Your task to perform on an android device: Open accessibility settings Image 0: 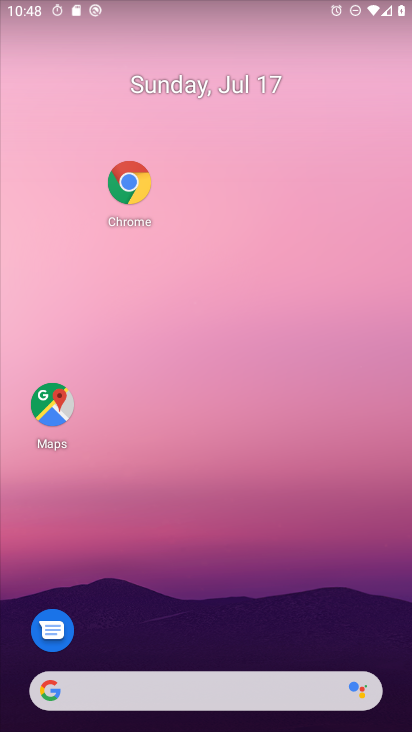
Step 0: drag from (258, 552) to (260, 372)
Your task to perform on an android device: Open accessibility settings Image 1: 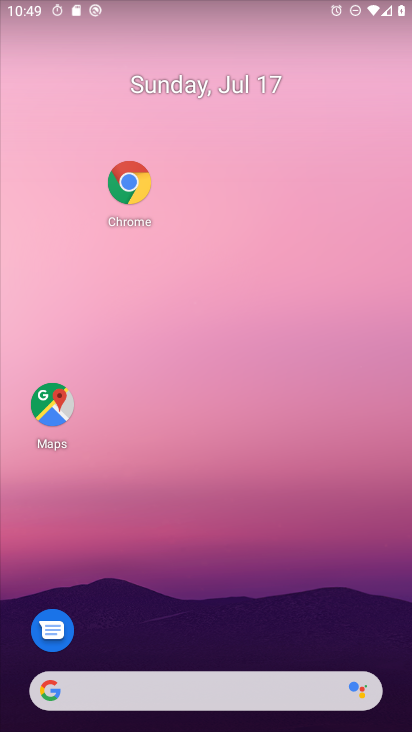
Step 1: drag from (194, 650) to (233, 219)
Your task to perform on an android device: Open accessibility settings Image 2: 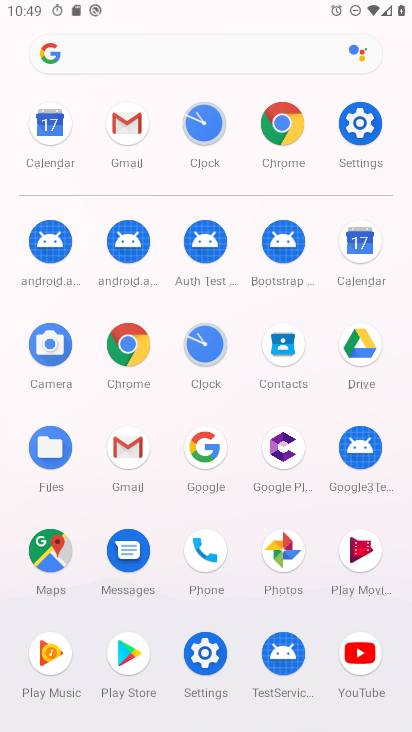
Step 2: click (364, 117)
Your task to perform on an android device: Open accessibility settings Image 3: 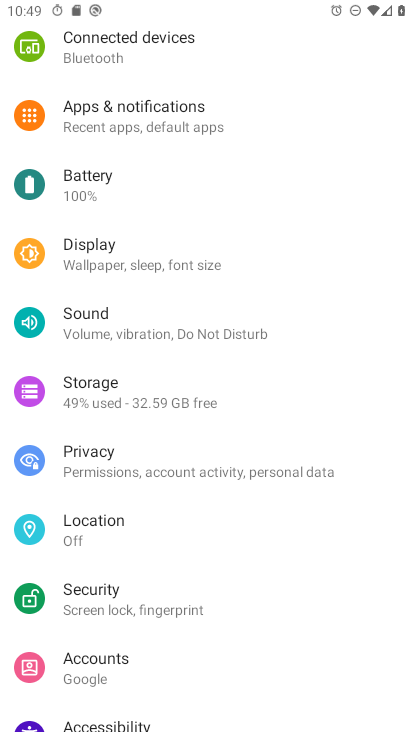
Step 3: drag from (135, 550) to (164, 60)
Your task to perform on an android device: Open accessibility settings Image 4: 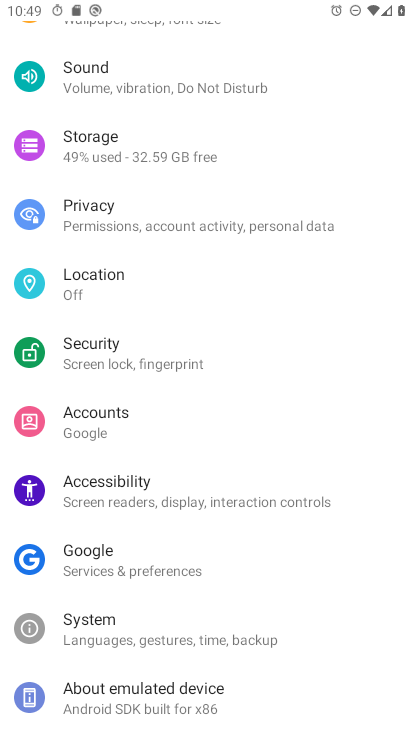
Step 4: click (169, 488)
Your task to perform on an android device: Open accessibility settings Image 5: 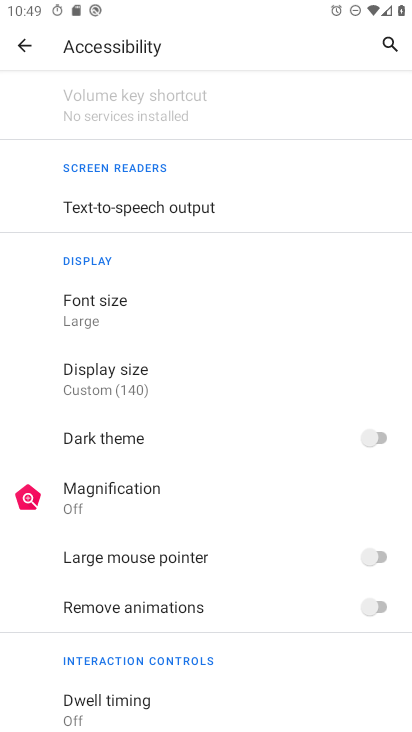
Step 5: task complete